Your task to perform on an android device: Go to battery settings Image 0: 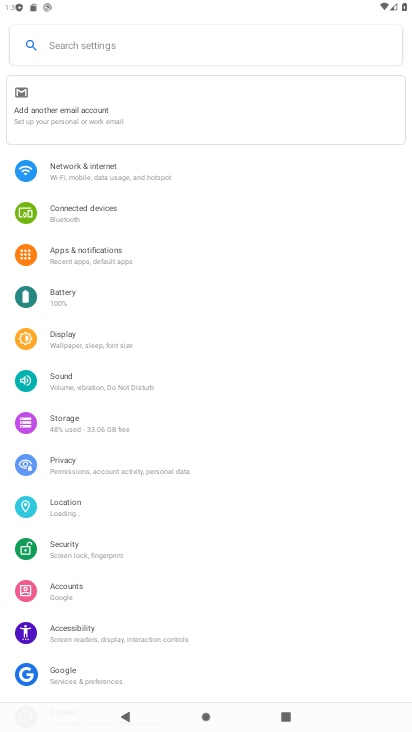
Step 0: click (117, 307)
Your task to perform on an android device: Go to battery settings Image 1: 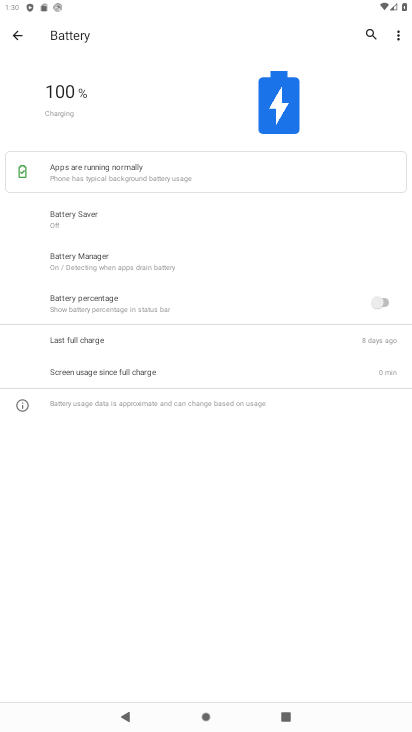
Step 1: task complete